Your task to perform on an android device: turn off priority inbox in the gmail app Image 0: 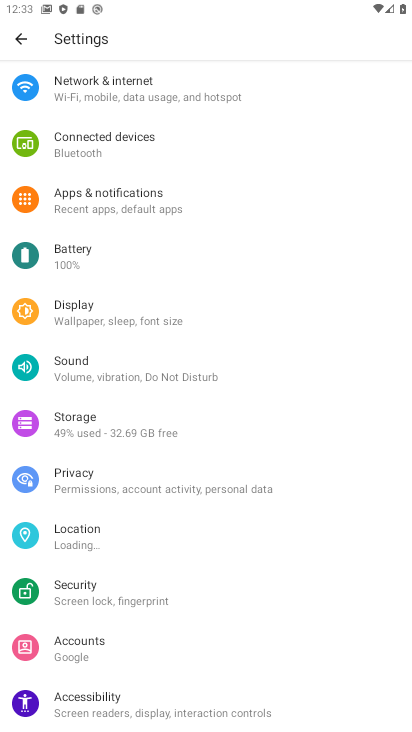
Step 0: press home button
Your task to perform on an android device: turn off priority inbox in the gmail app Image 1: 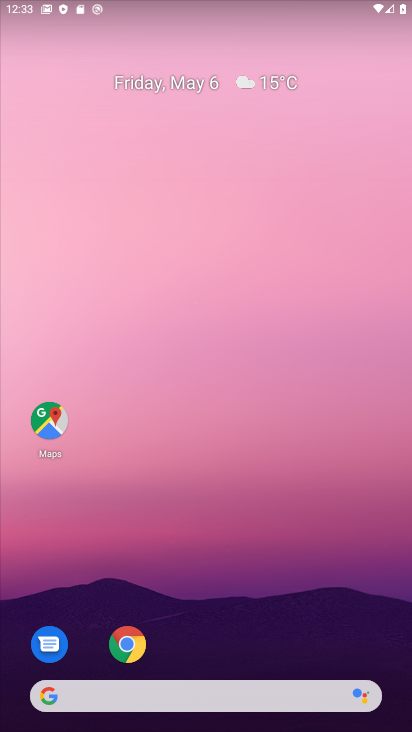
Step 1: drag from (163, 665) to (260, 213)
Your task to perform on an android device: turn off priority inbox in the gmail app Image 2: 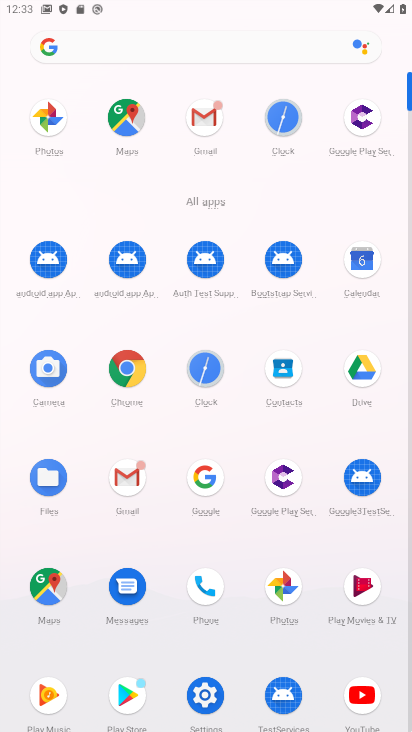
Step 2: drag from (121, 579) to (162, 448)
Your task to perform on an android device: turn off priority inbox in the gmail app Image 3: 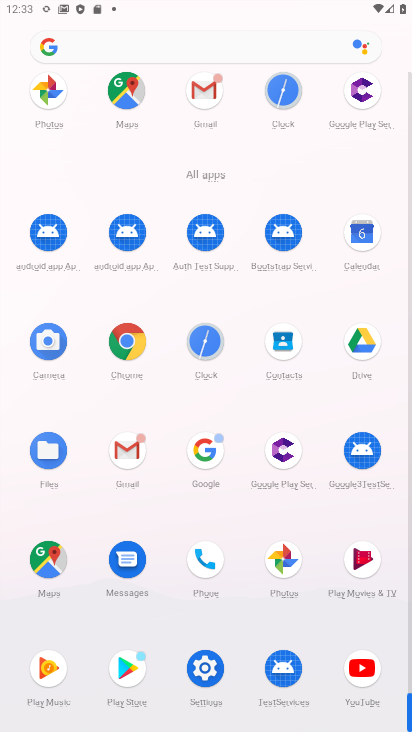
Step 3: click (127, 435)
Your task to perform on an android device: turn off priority inbox in the gmail app Image 4: 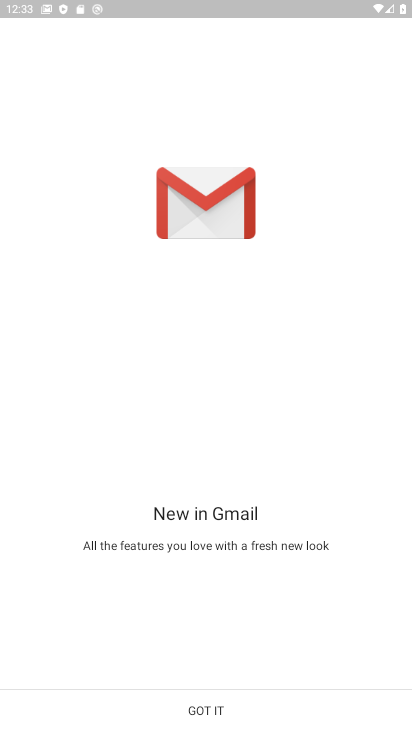
Step 4: click (222, 706)
Your task to perform on an android device: turn off priority inbox in the gmail app Image 5: 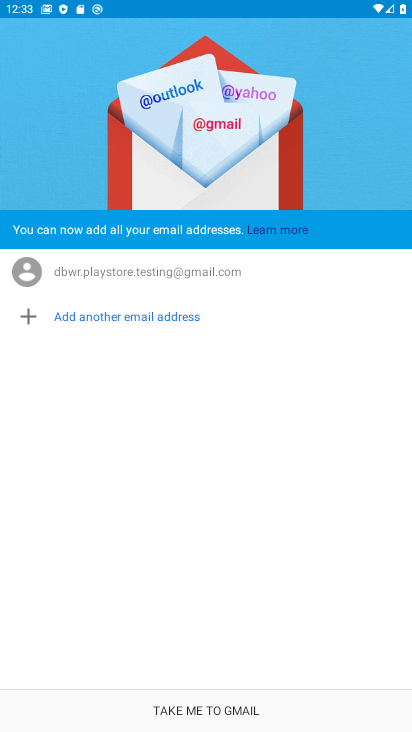
Step 5: click (210, 708)
Your task to perform on an android device: turn off priority inbox in the gmail app Image 6: 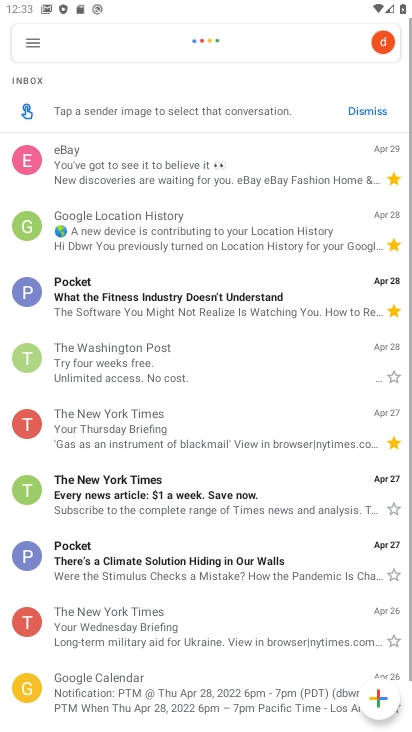
Step 6: click (36, 45)
Your task to perform on an android device: turn off priority inbox in the gmail app Image 7: 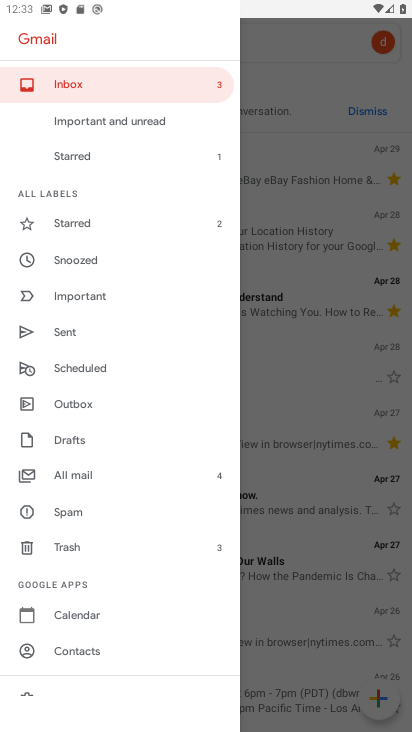
Step 7: drag from (76, 544) to (194, 234)
Your task to perform on an android device: turn off priority inbox in the gmail app Image 8: 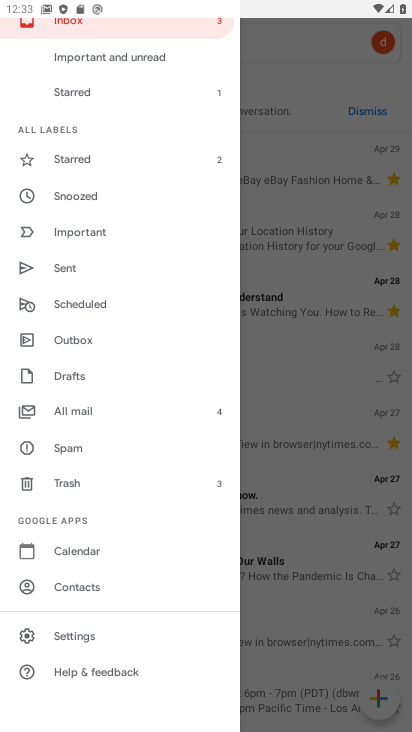
Step 8: click (100, 633)
Your task to perform on an android device: turn off priority inbox in the gmail app Image 9: 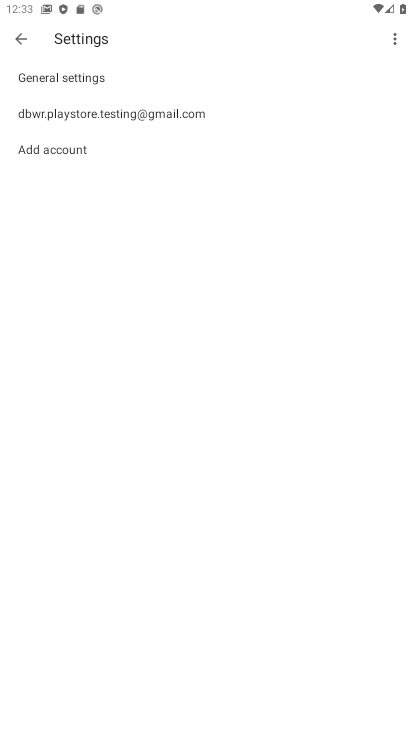
Step 9: click (195, 118)
Your task to perform on an android device: turn off priority inbox in the gmail app Image 10: 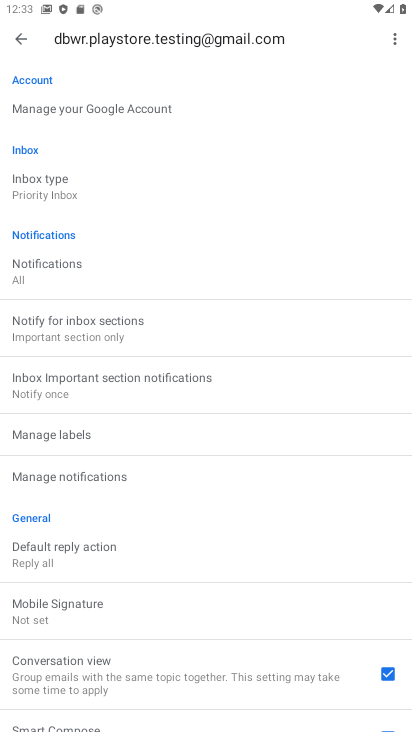
Step 10: click (99, 185)
Your task to perform on an android device: turn off priority inbox in the gmail app Image 11: 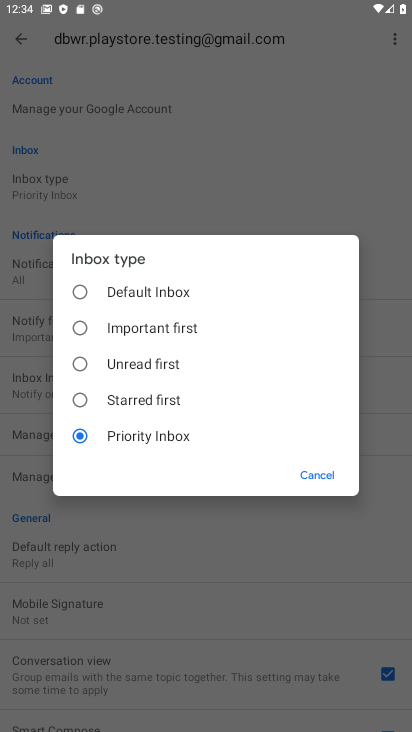
Step 11: click (160, 294)
Your task to perform on an android device: turn off priority inbox in the gmail app Image 12: 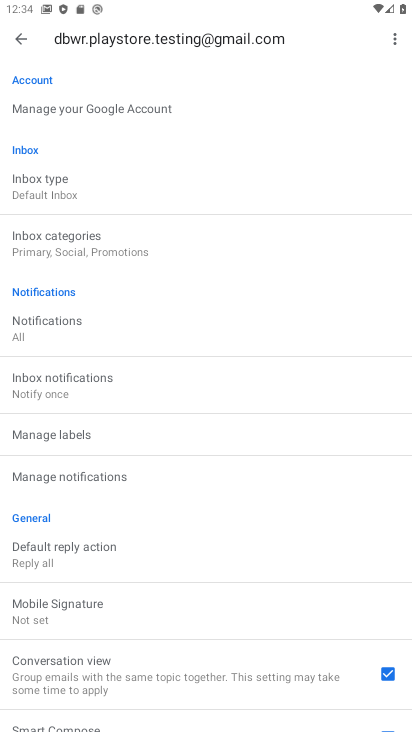
Step 12: task complete